Your task to perform on an android device: Open maps Image 0: 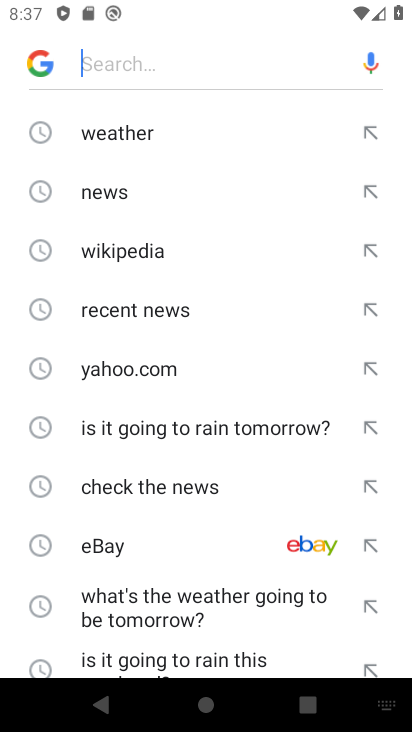
Step 0: press back button
Your task to perform on an android device: Open maps Image 1: 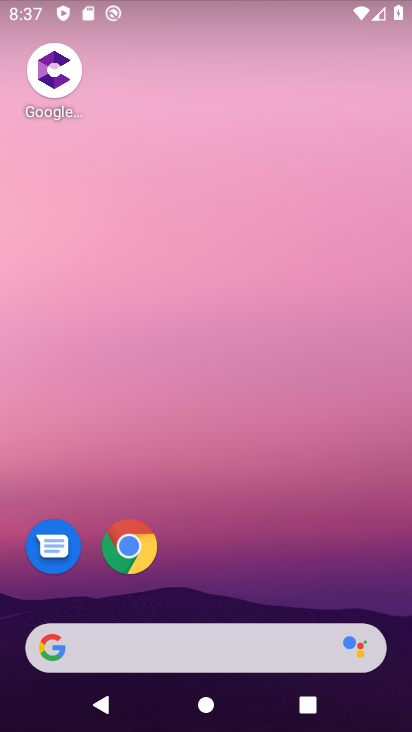
Step 1: press home button
Your task to perform on an android device: Open maps Image 2: 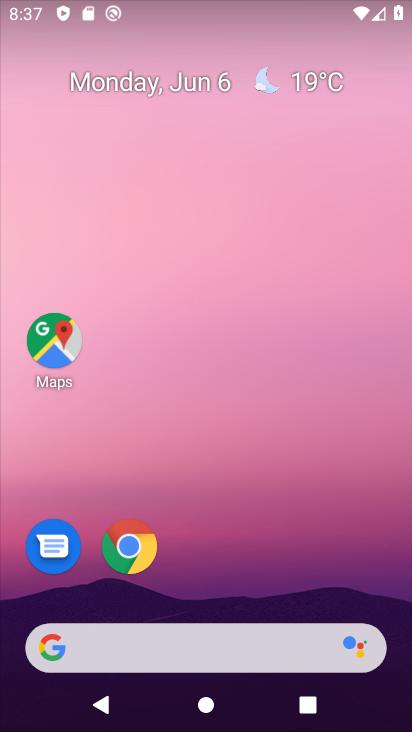
Step 2: click (59, 327)
Your task to perform on an android device: Open maps Image 3: 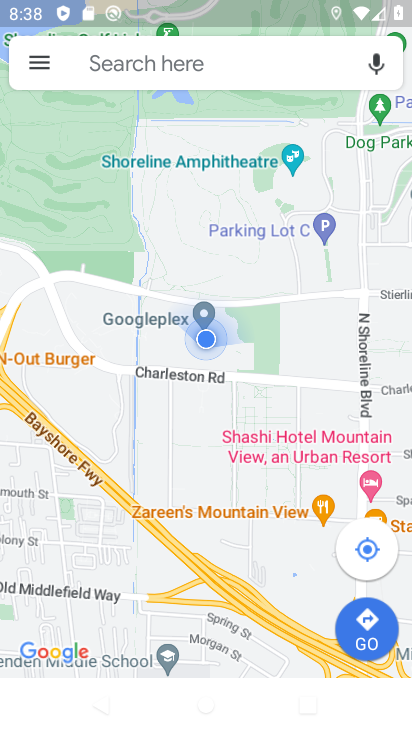
Step 3: task complete